Your task to perform on an android device: Search for sushi restaurants on Maps Image 0: 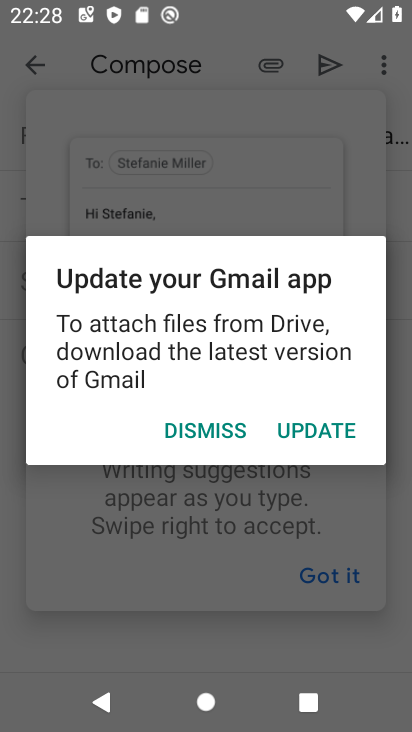
Step 0: press home button
Your task to perform on an android device: Search for sushi restaurants on Maps Image 1: 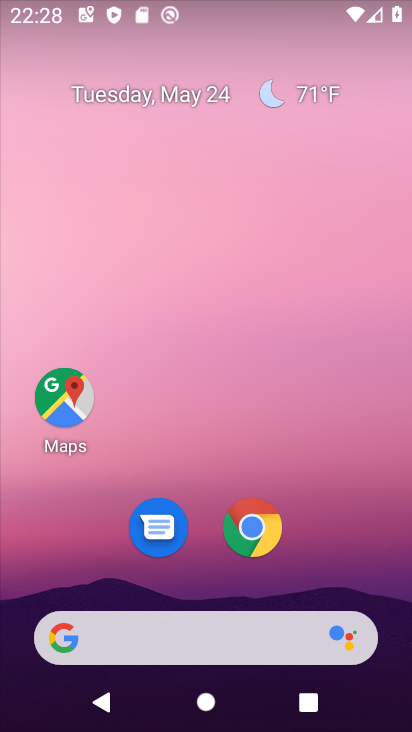
Step 1: click (65, 399)
Your task to perform on an android device: Search for sushi restaurants on Maps Image 2: 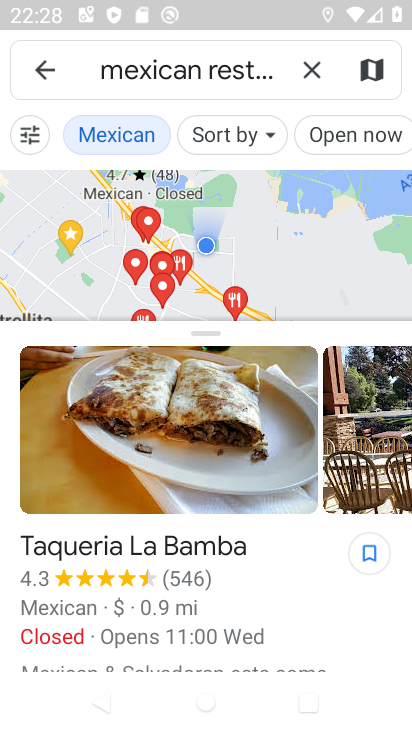
Step 2: click (313, 70)
Your task to perform on an android device: Search for sushi restaurants on Maps Image 3: 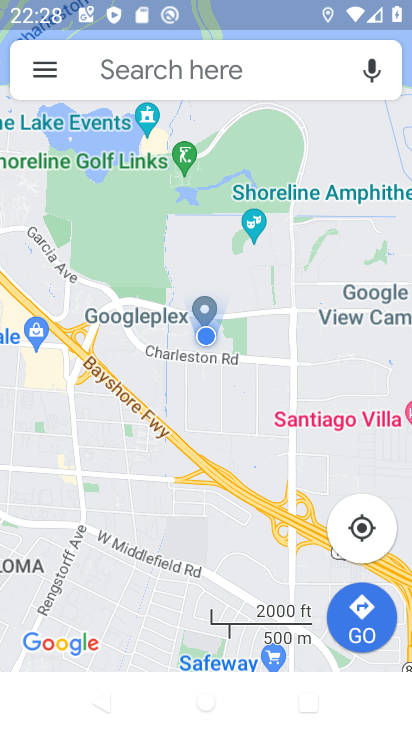
Step 3: click (243, 82)
Your task to perform on an android device: Search for sushi restaurants on Maps Image 4: 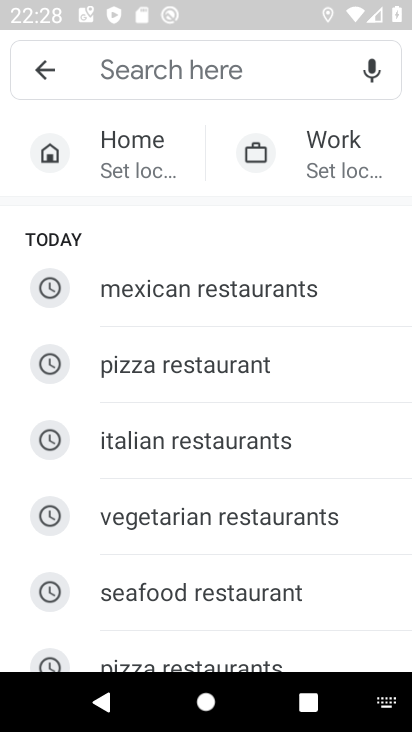
Step 4: type "sushi restaurants"
Your task to perform on an android device: Search for sushi restaurants on Maps Image 5: 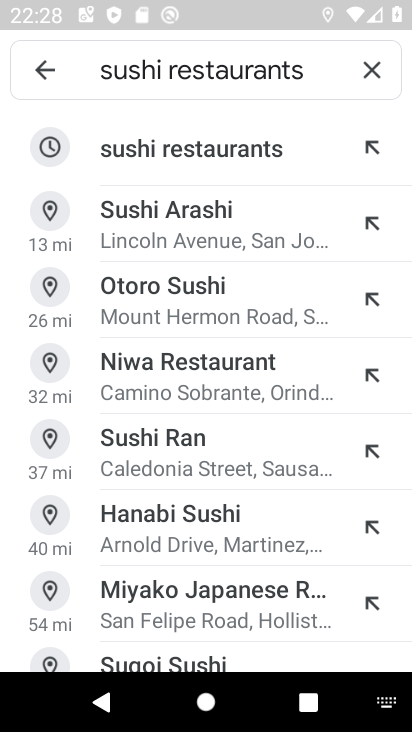
Step 5: click (115, 137)
Your task to perform on an android device: Search for sushi restaurants on Maps Image 6: 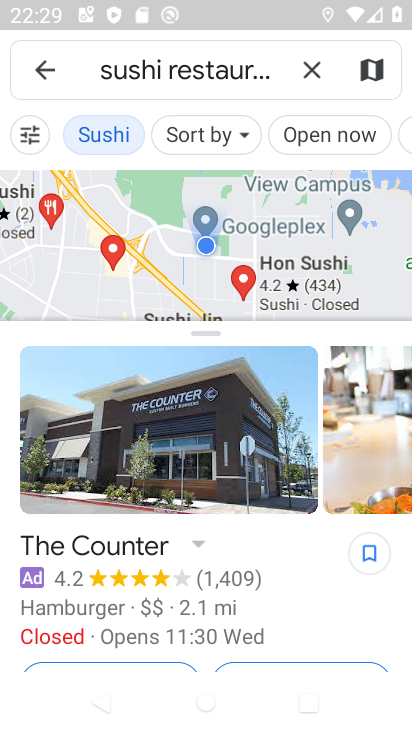
Step 6: task complete